Your task to perform on an android device: change the upload size in google photos Image 0: 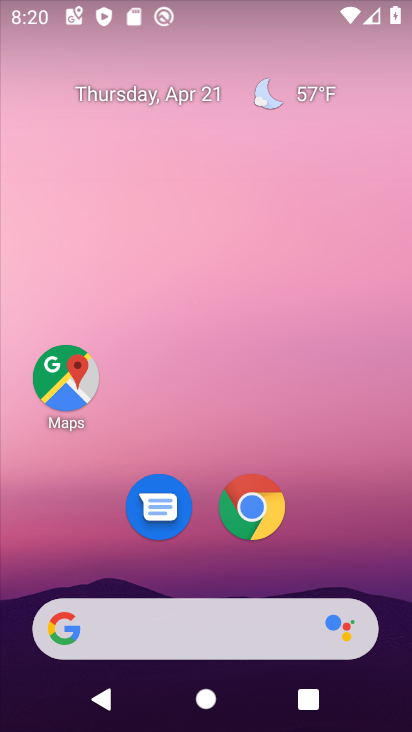
Step 0: drag from (332, 544) to (224, 0)
Your task to perform on an android device: change the upload size in google photos Image 1: 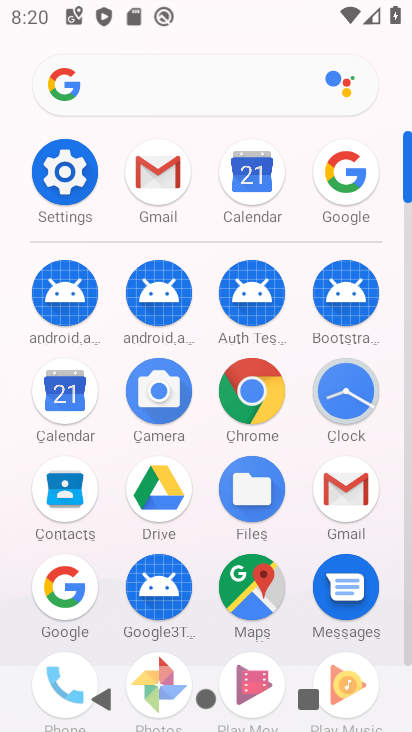
Step 1: click (404, 660)
Your task to perform on an android device: change the upload size in google photos Image 2: 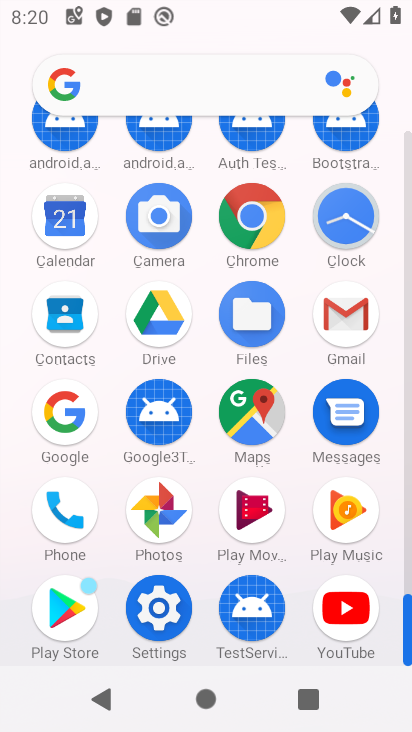
Step 2: click (154, 522)
Your task to perform on an android device: change the upload size in google photos Image 3: 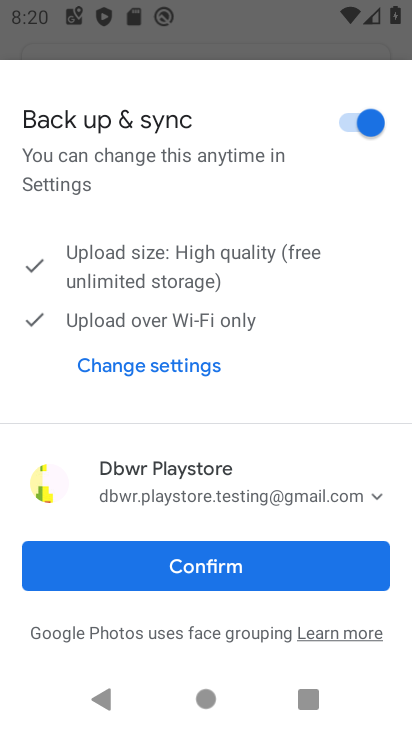
Step 3: click (171, 567)
Your task to perform on an android device: change the upload size in google photos Image 4: 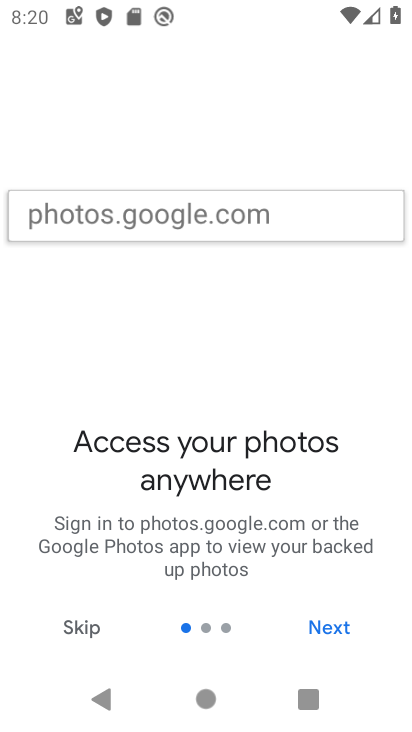
Step 4: click (326, 631)
Your task to perform on an android device: change the upload size in google photos Image 5: 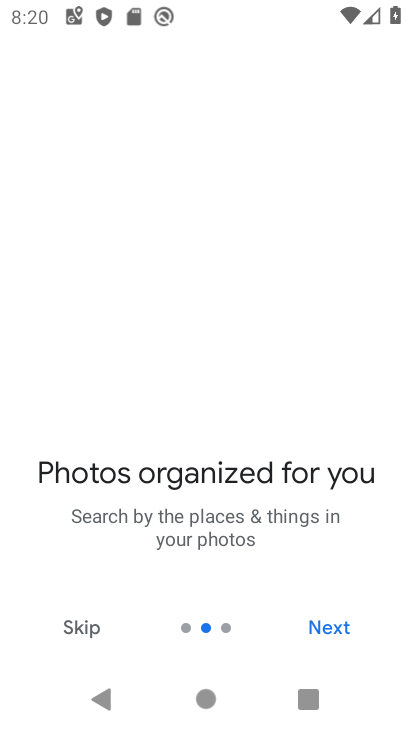
Step 5: click (326, 631)
Your task to perform on an android device: change the upload size in google photos Image 6: 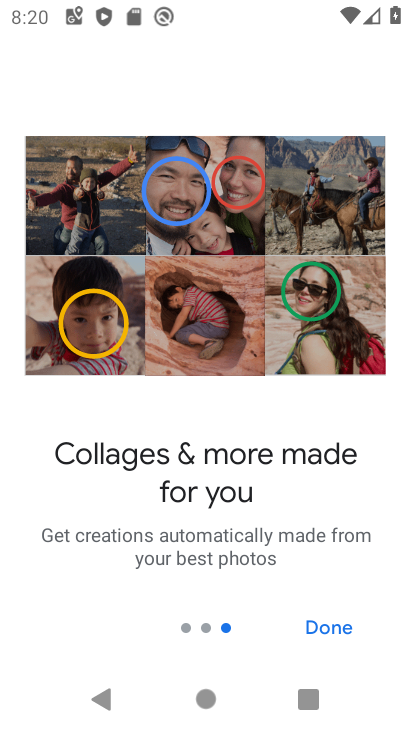
Step 6: click (326, 631)
Your task to perform on an android device: change the upload size in google photos Image 7: 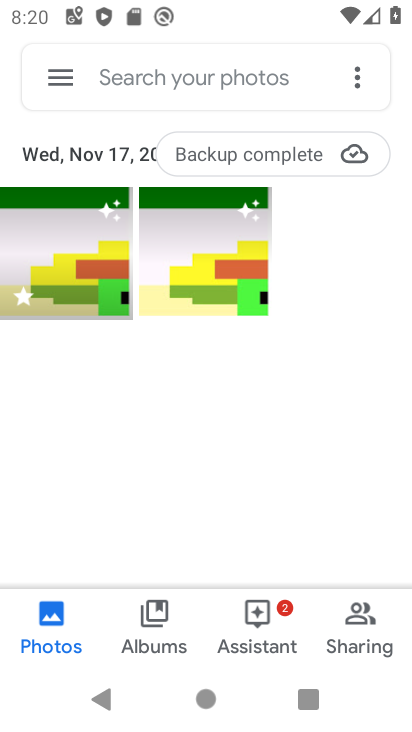
Step 7: drag from (326, 631) to (70, 355)
Your task to perform on an android device: change the upload size in google photos Image 8: 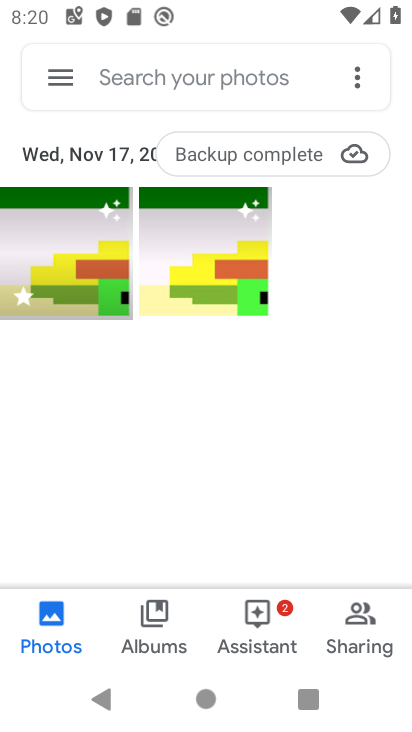
Step 8: click (54, 82)
Your task to perform on an android device: change the upload size in google photos Image 9: 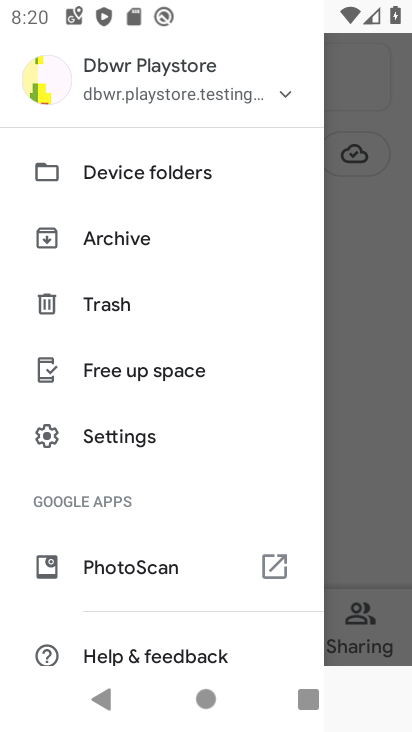
Step 9: click (144, 424)
Your task to perform on an android device: change the upload size in google photos Image 10: 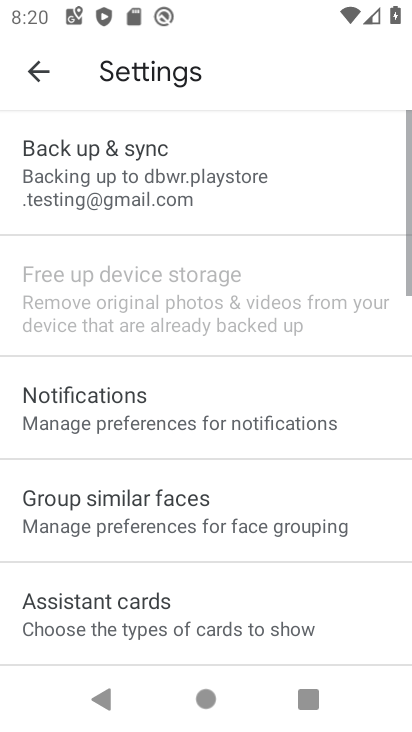
Step 10: click (151, 160)
Your task to perform on an android device: change the upload size in google photos Image 11: 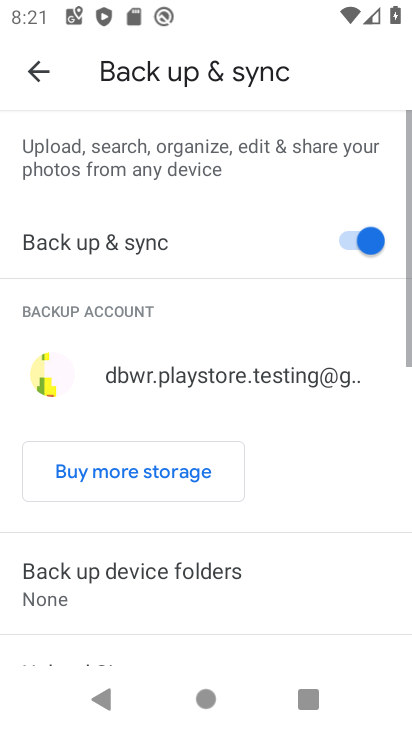
Step 11: drag from (139, 583) to (131, 455)
Your task to perform on an android device: change the upload size in google photos Image 12: 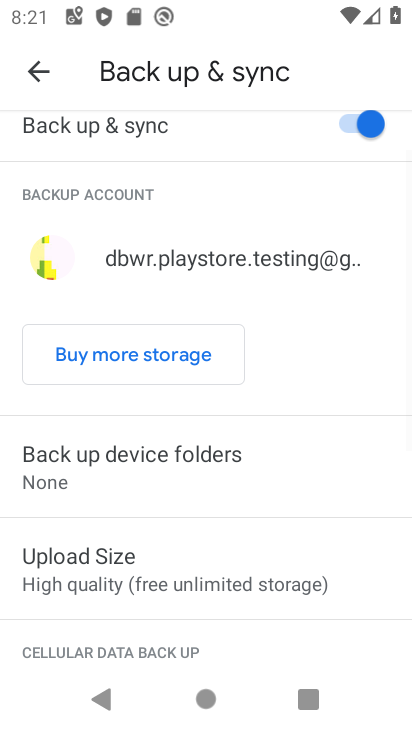
Step 12: click (149, 572)
Your task to perform on an android device: change the upload size in google photos Image 13: 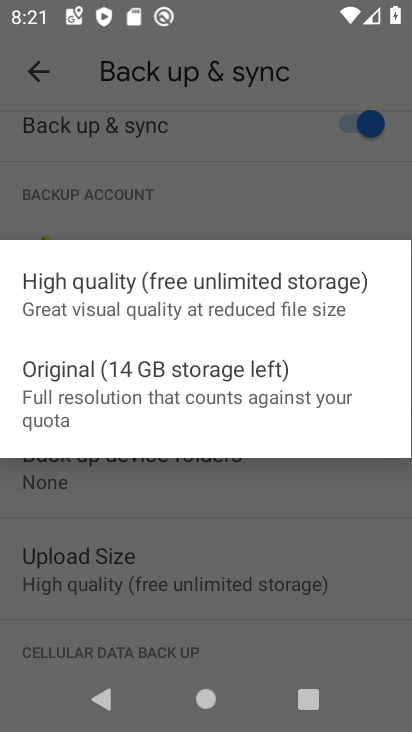
Step 13: click (184, 390)
Your task to perform on an android device: change the upload size in google photos Image 14: 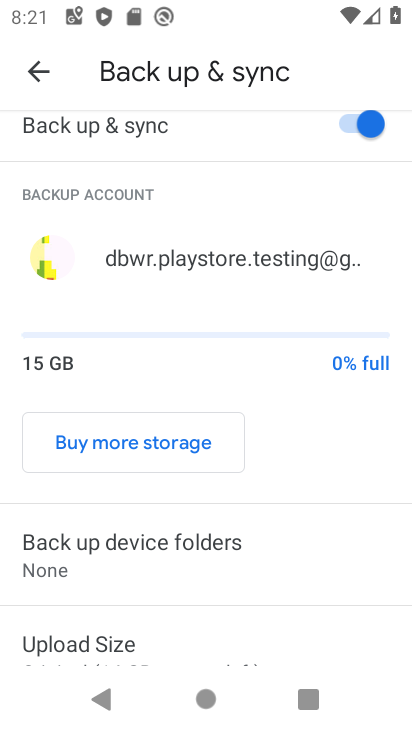
Step 14: task complete